Your task to perform on an android device: Open internet settings Image 0: 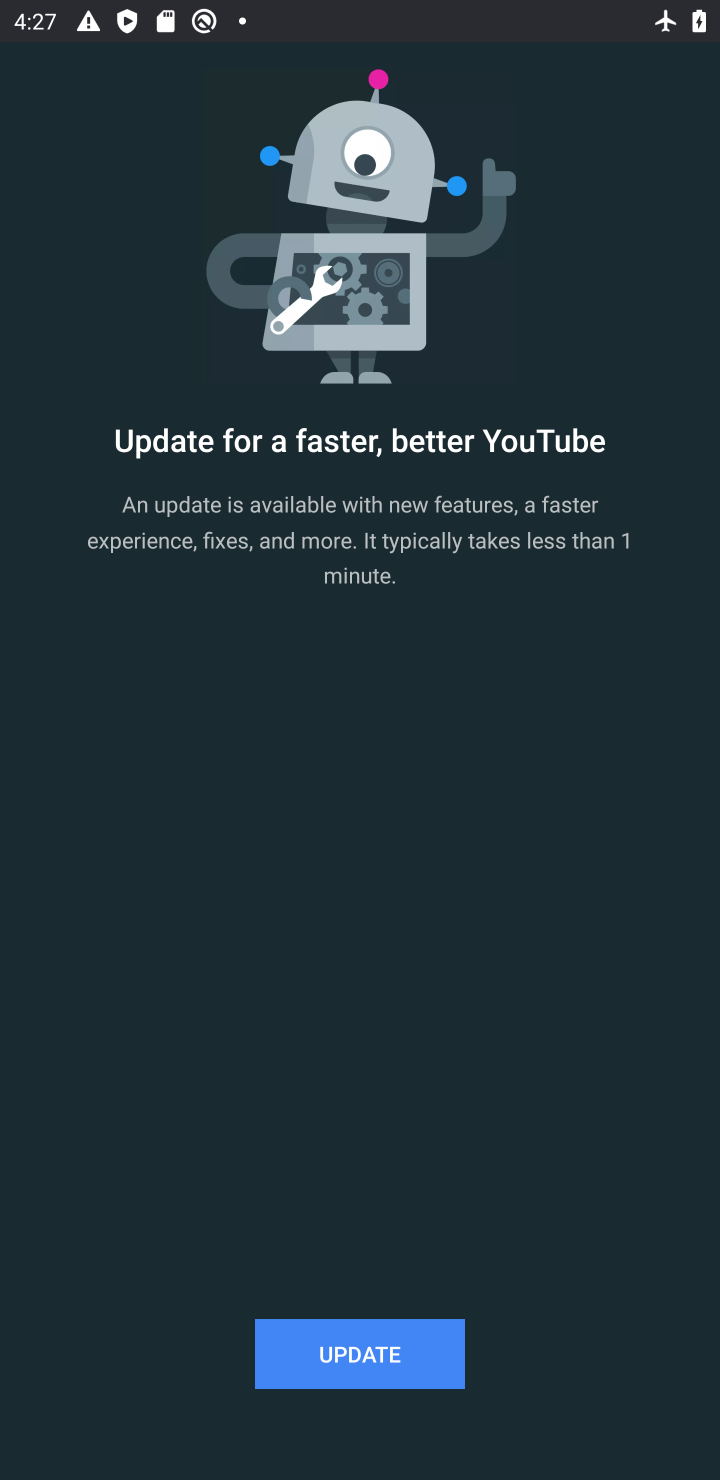
Step 0: click (551, 287)
Your task to perform on an android device: Open internet settings Image 1: 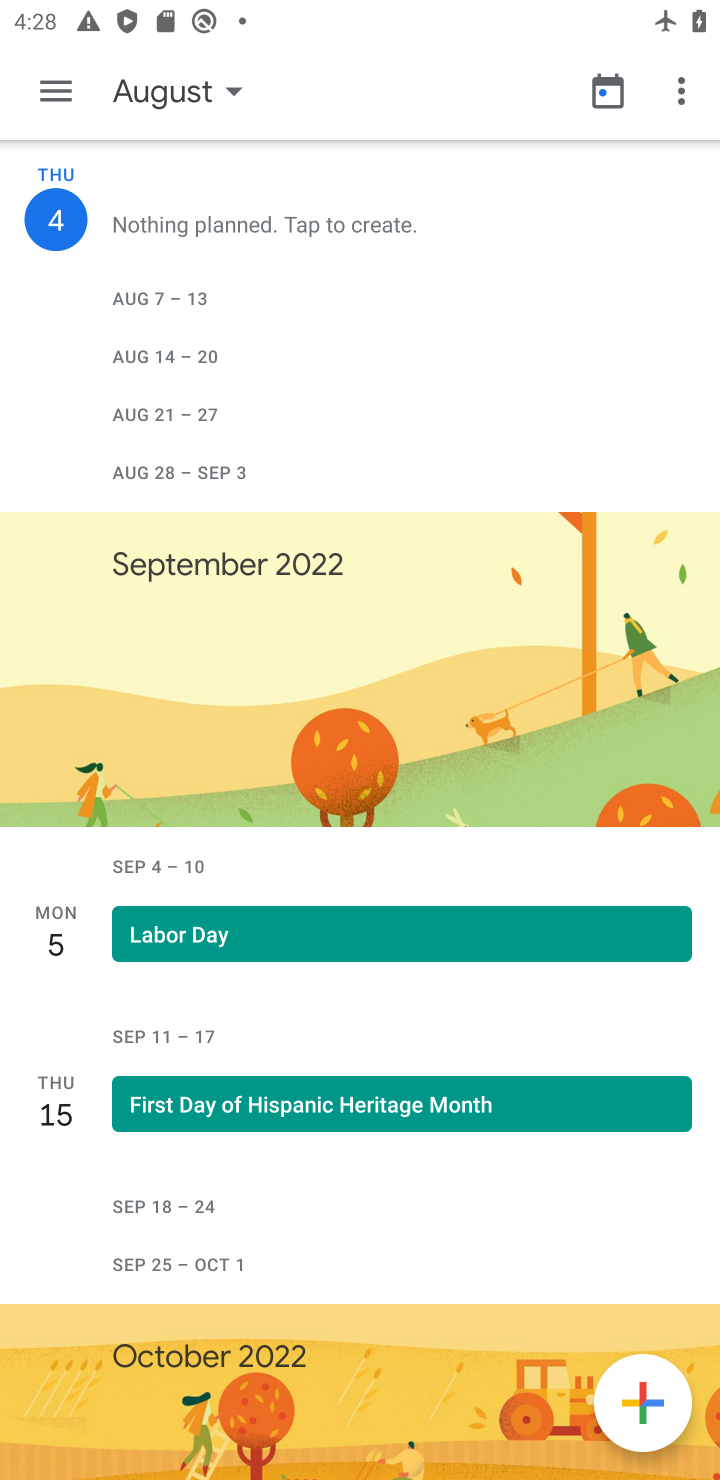
Step 1: press home button
Your task to perform on an android device: Open internet settings Image 2: 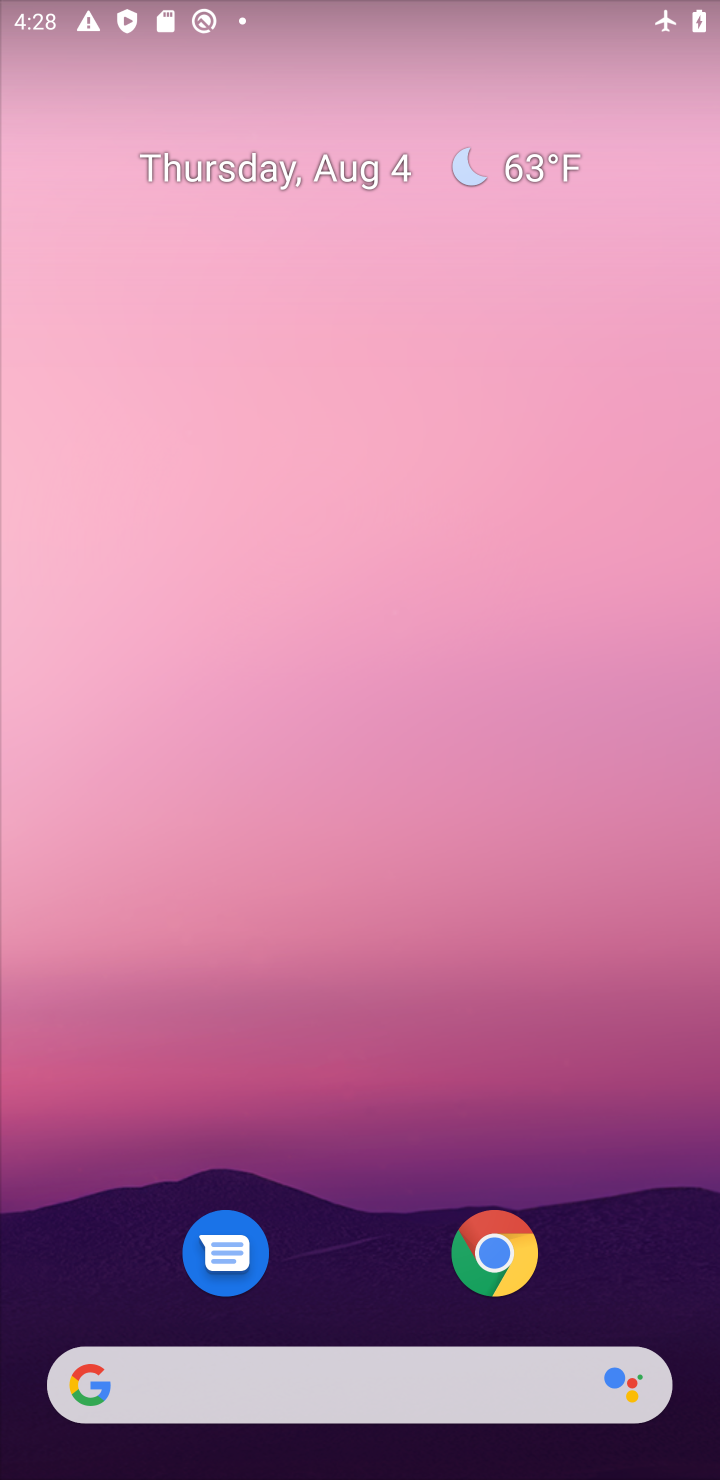
Step 2: drag from (396, 751) to (501, 163)
Your task to perform on an android device: Open internet settings Image 3: 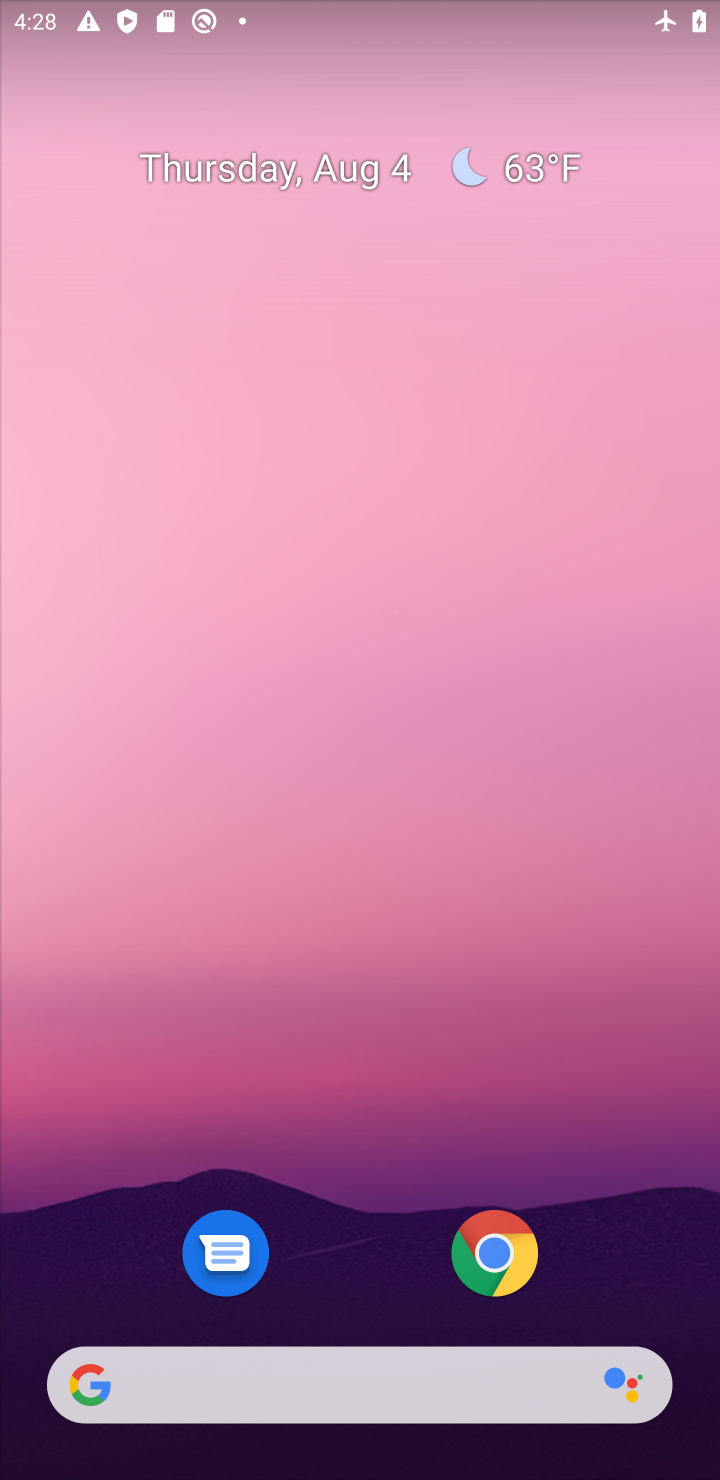
Step 3: drag from (252, 1357) to (367, 509)
Your task to perform on an android device: Open internet settings Image 4: 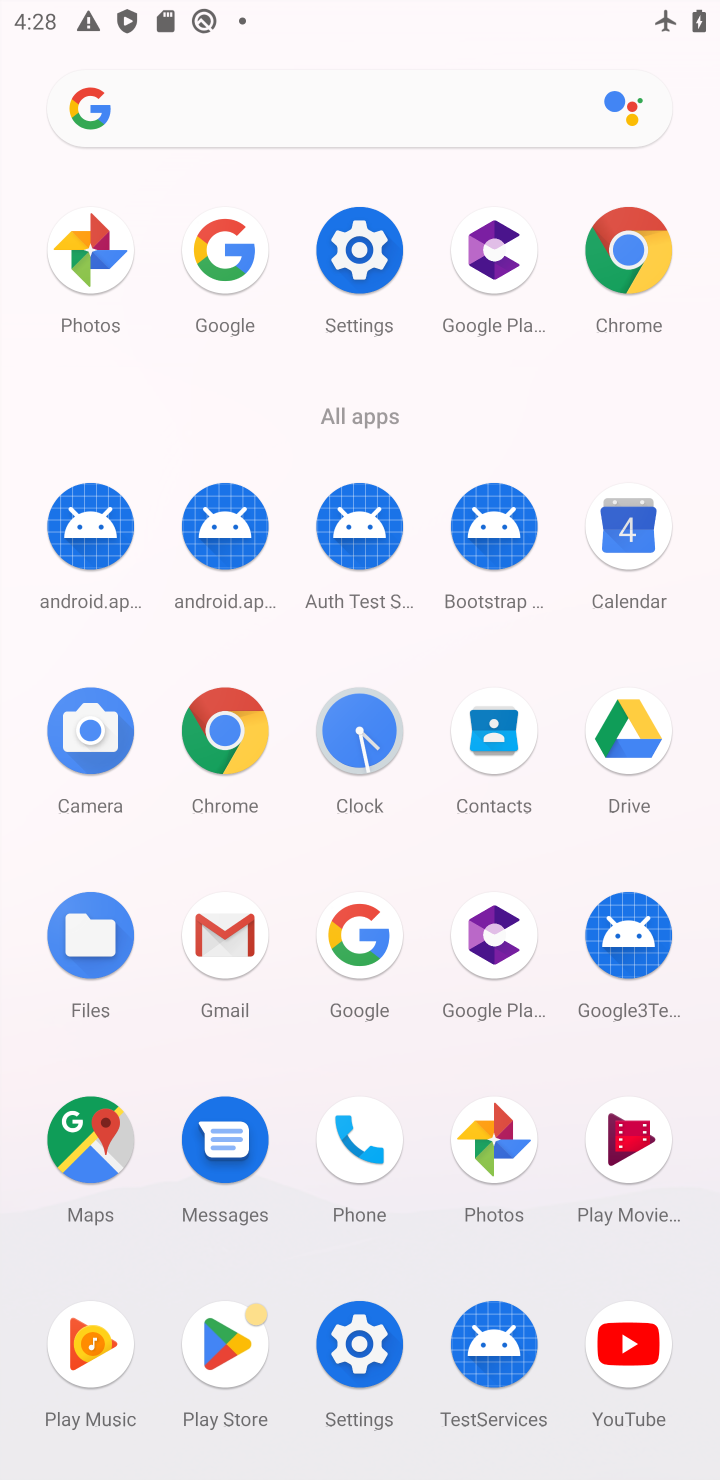
Step 4: click (346, 242)
Your task to perform on an android device: Open internet settings Image 5: 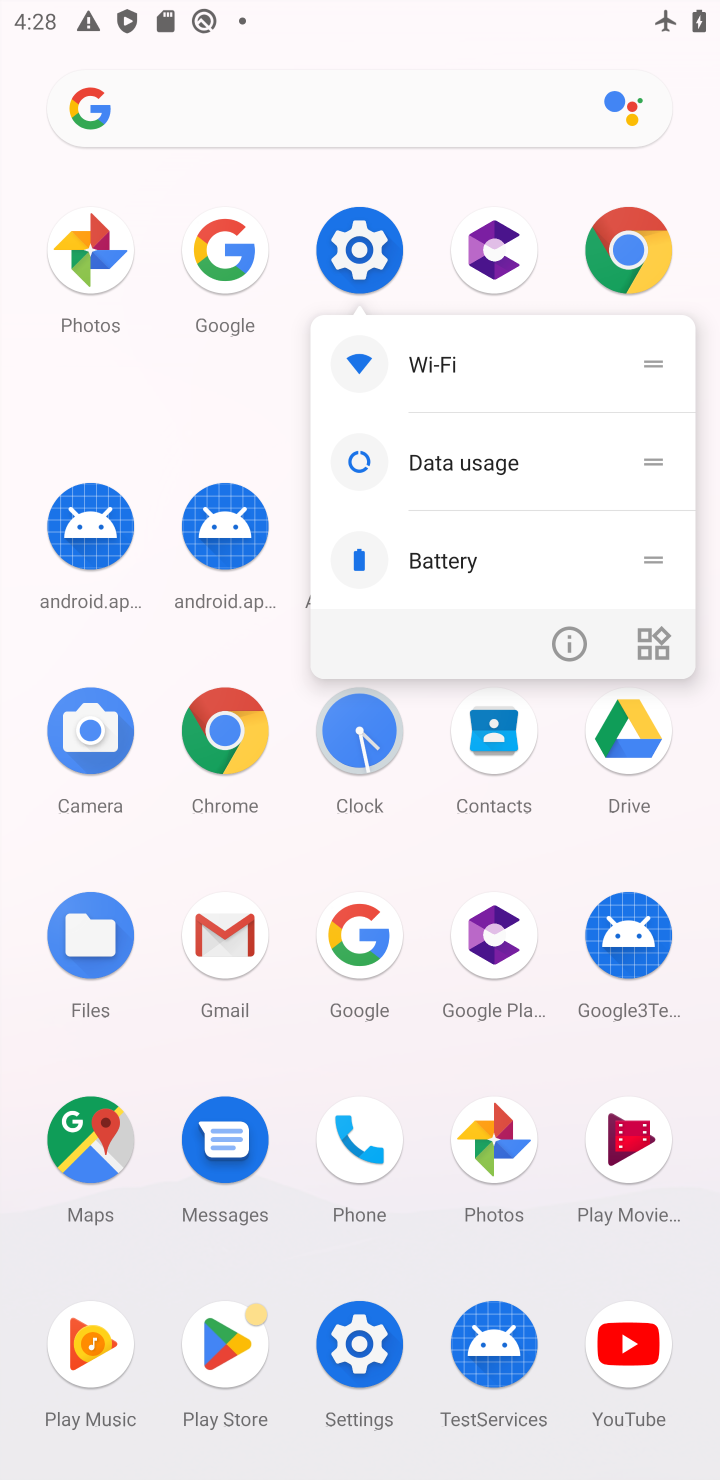
Step 5: click (346, 248)
Your task to perform on an android device: Open internet settings Image 6: 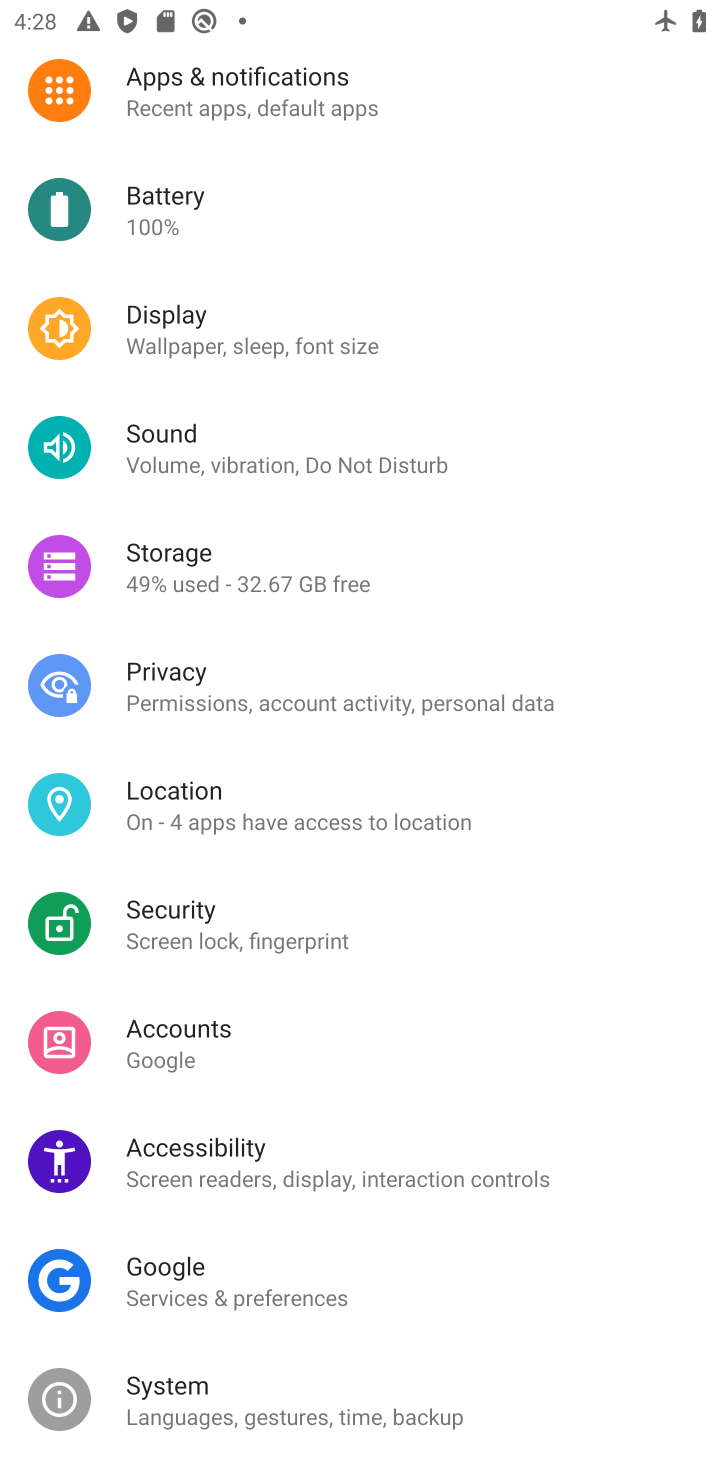
Step 6: drag from (318, 217) to (361, 995)
Your task to perform on an android device: Open internet settings Image 7: 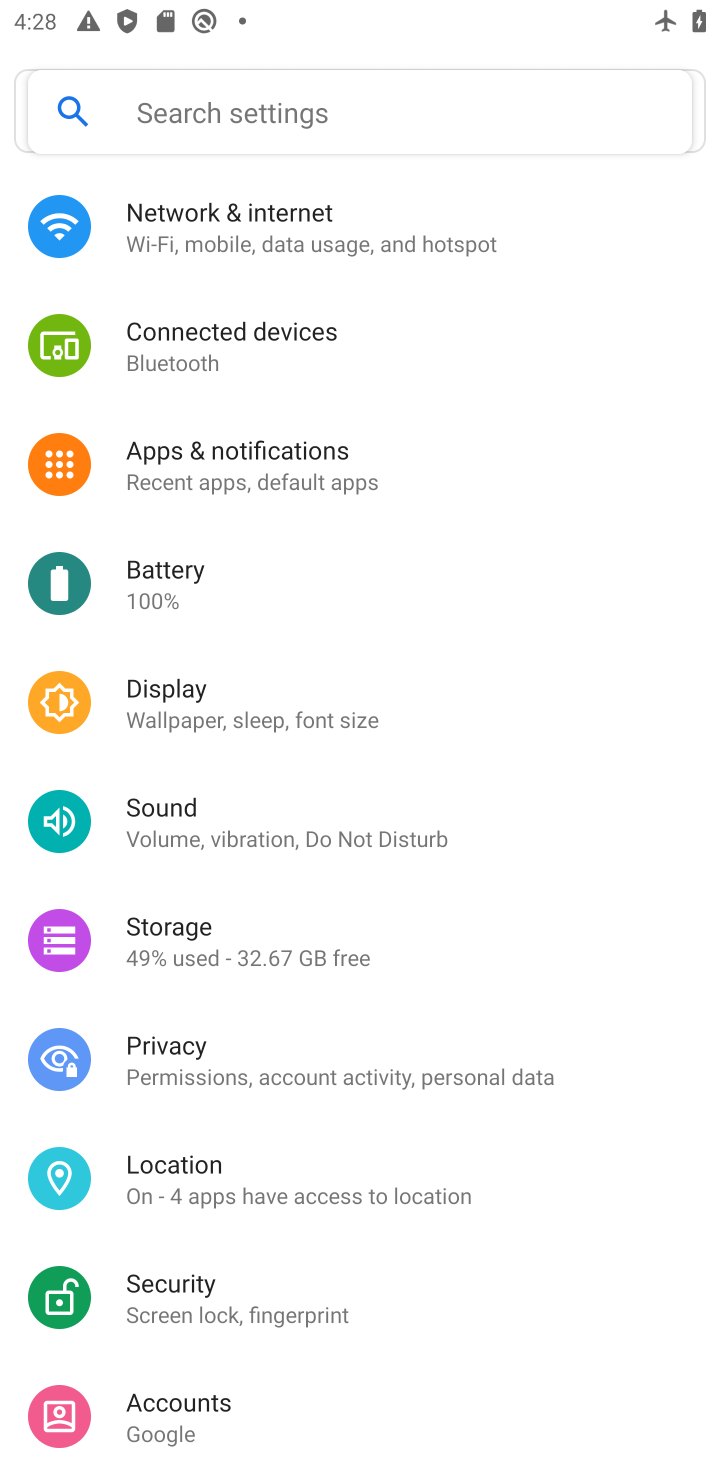
Step 7: click (192, 220)
Your task to perform on an android device: Open internet settings Image 8: 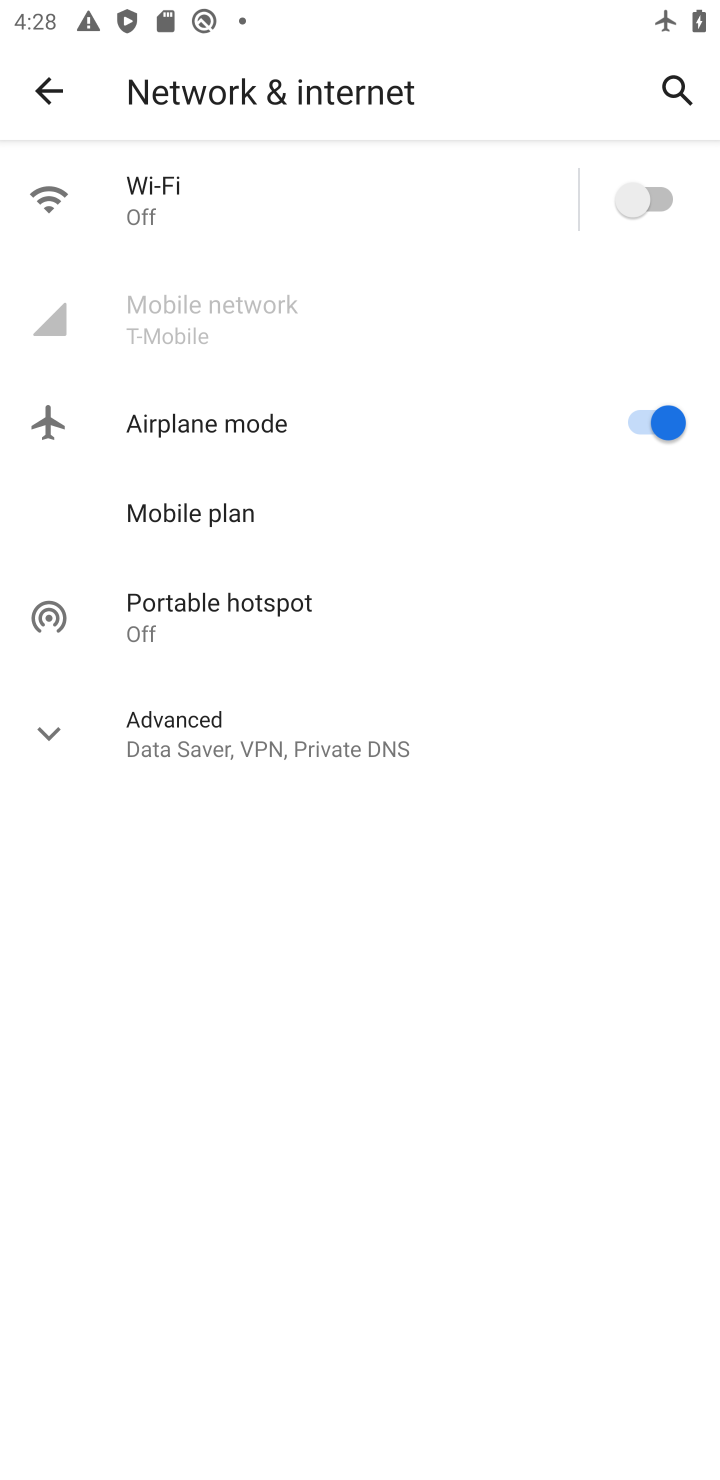
Step 8: click (640, 422)
Your task to perform on an android device: Open internet settings Image 9: 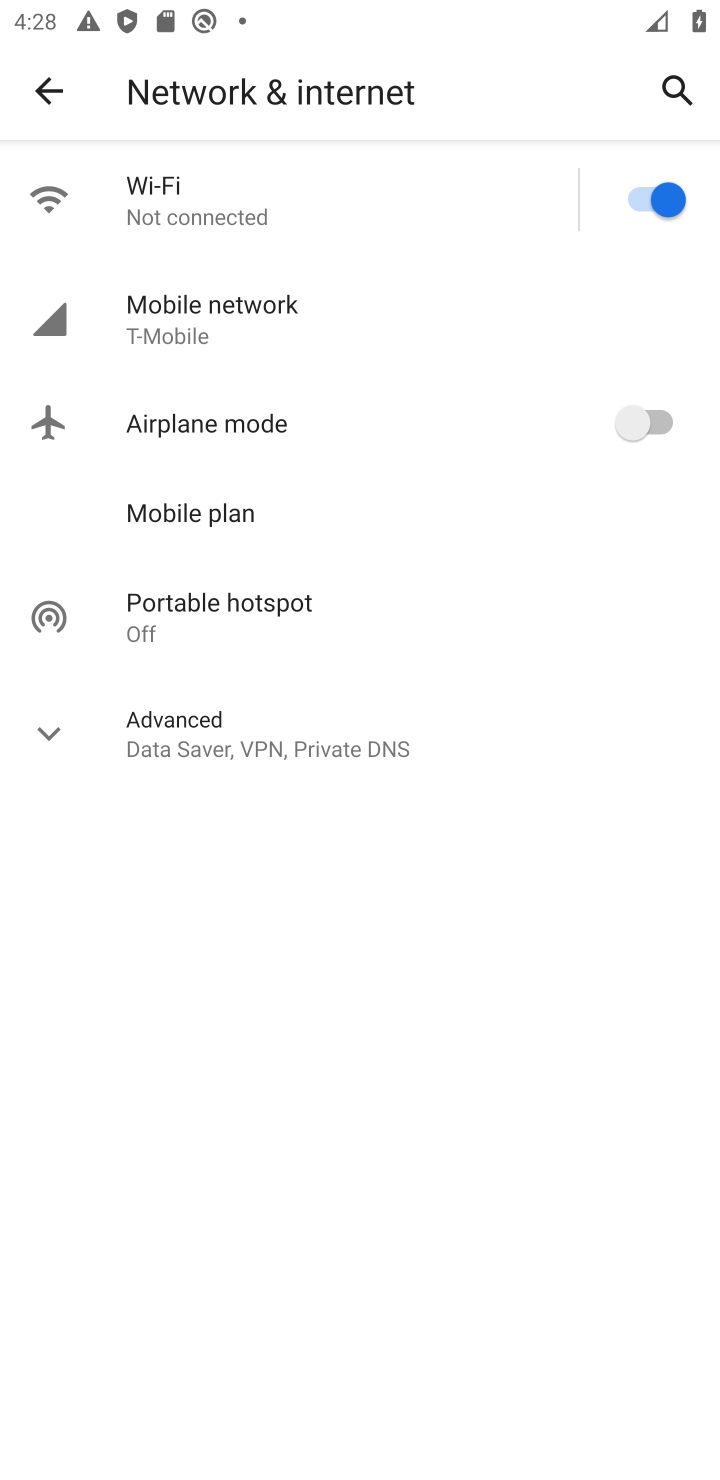
Step 9: click (275, 304)
Your task to perform on an android device: Open internet settings Image 10: 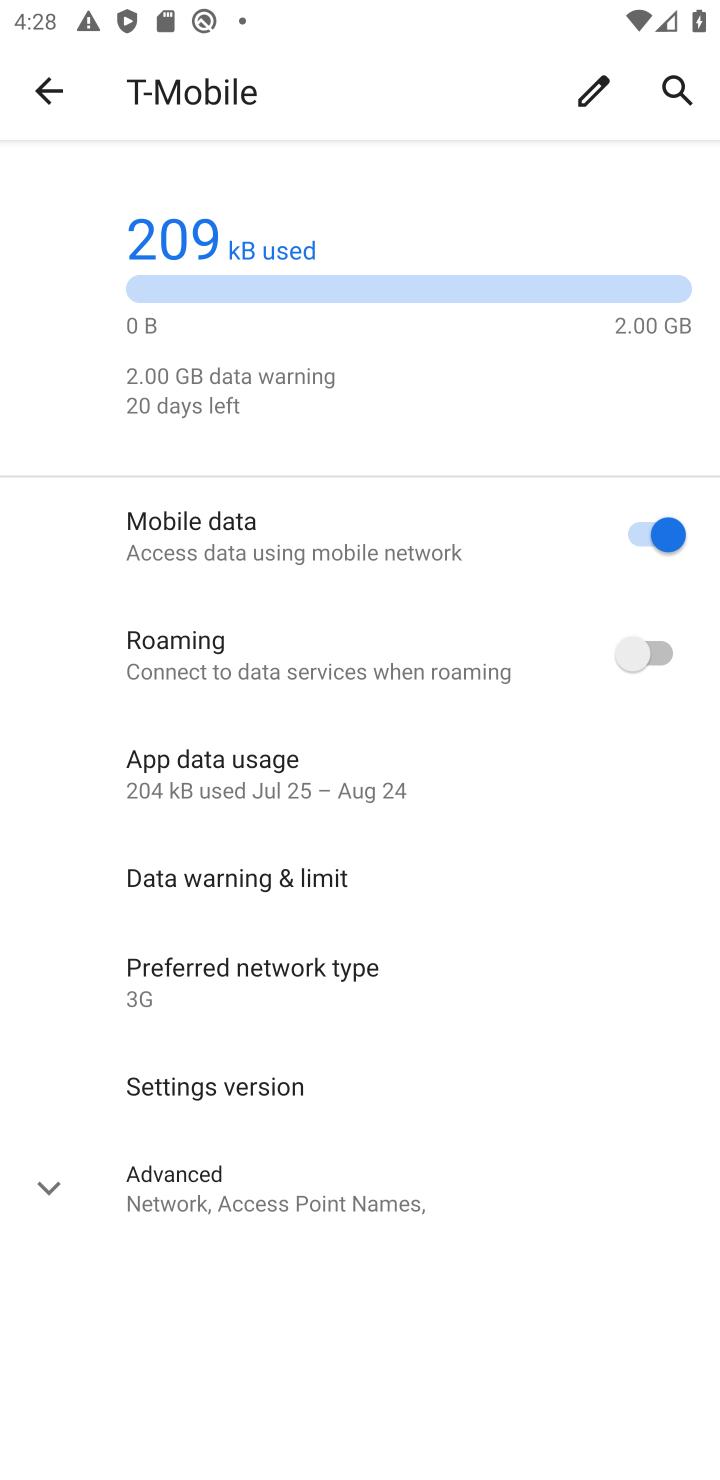
Step 10: click (288, 1209)
Your task to perform on an android device: Open internet settings Image 11: 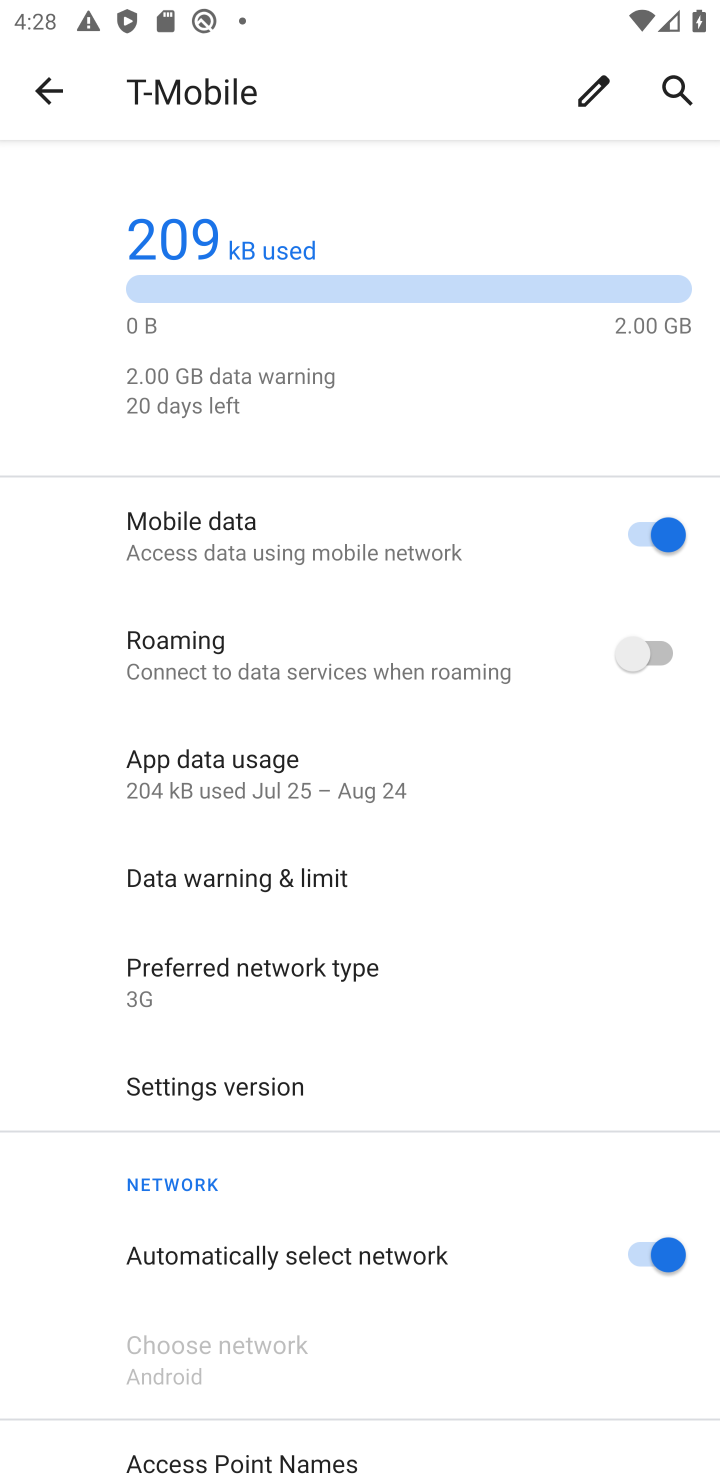
Step 11: task complete